Your task to perform on an android device: turn smart compose on in the gmail app Image 0: 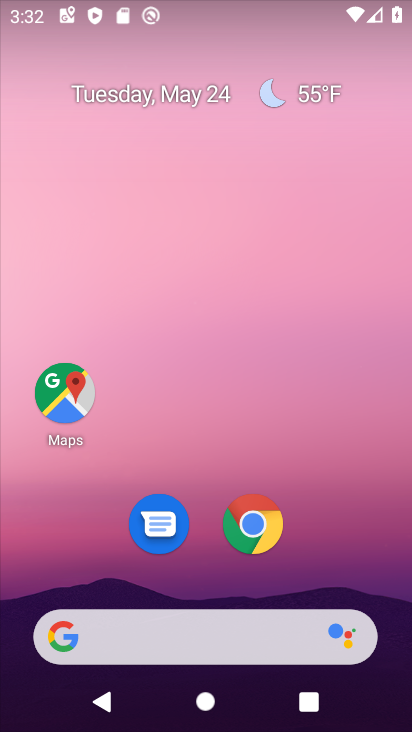
Step 0: drag from (313, 547) to (324, 64)
Your task to perform on an android device: turn smart compose on in the gmail app Image 1: 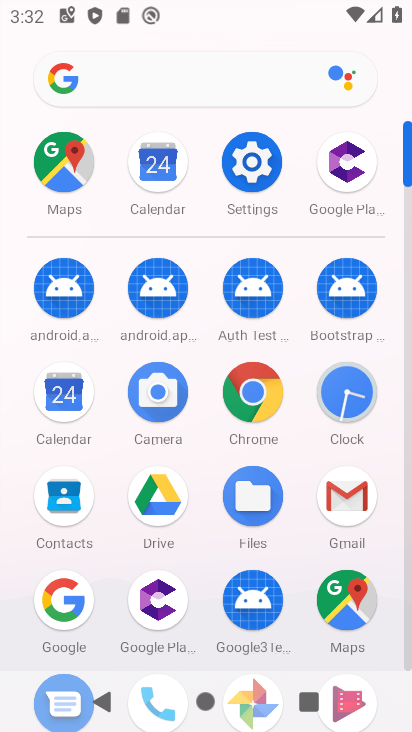
Step 1: click (360, 496)
Your task to perform on an android device: turn smart compose on in the gmail app Image 2: 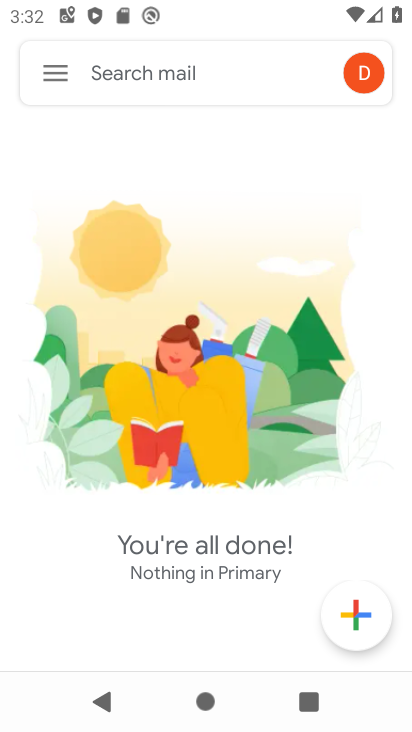
Step 2: click (57, 70)
Your task to perform on an android device: turn smart compose on in the gmail app Image 3: 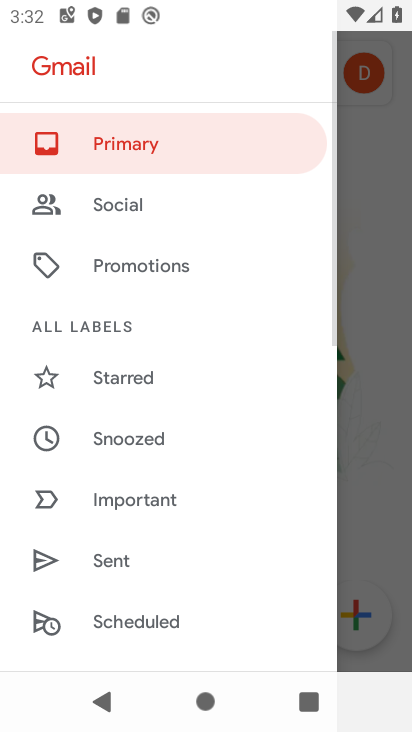
Step 3: drag from (219, 443) to (216, 123)
Your task to perform on an android device: turn smart compose on in the gmail app Image 4: 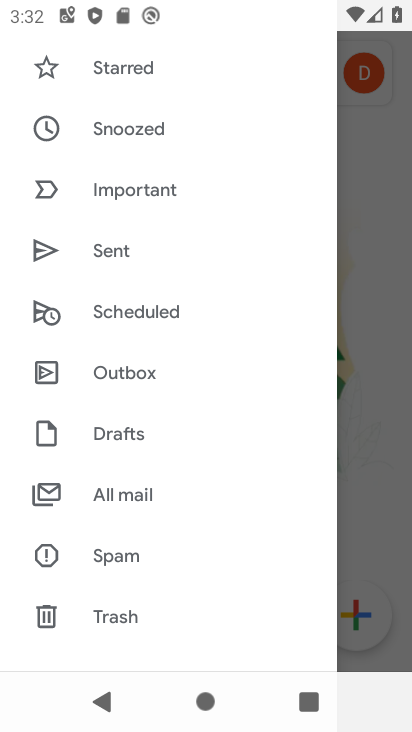
Step 4: drag from (202, 474) to (186, 87)
Your task to perform on an android device: turn smart compose on in the gmail app Image 5: 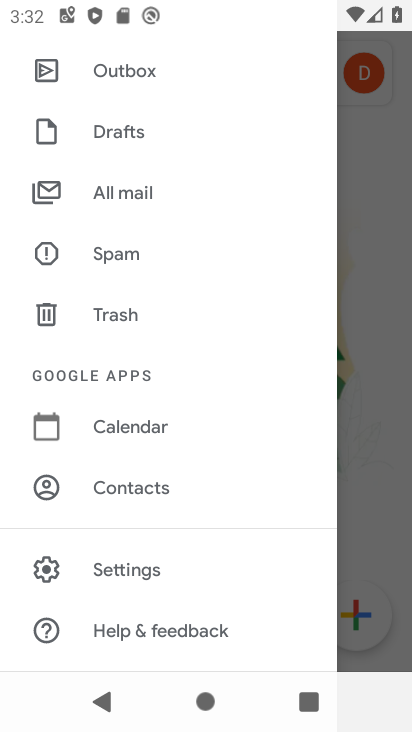
Step 5: click (160, 561)
Your task to perform on an android device: turn smart compose on in the gmail app Image 6: 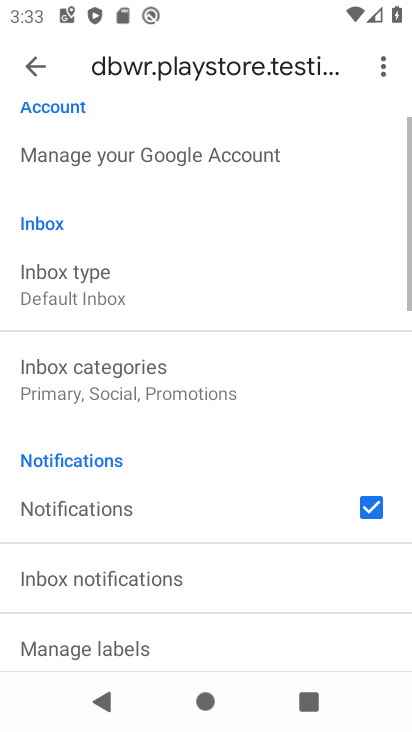
Step 6: task complete